Your task to perform on an android device: Search for the new Apple Watch on Best Buy Image 0: 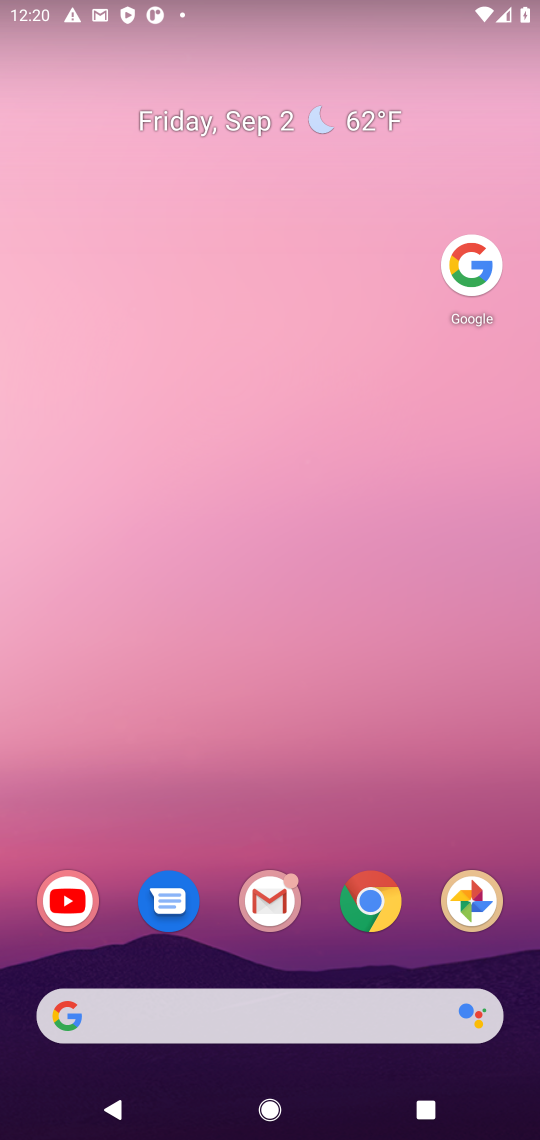
Step 0: drag from (271, 973) to (361, 509)
Your task to perform on an android device: Search for the new Apple Watch on Best Buy Image 1: 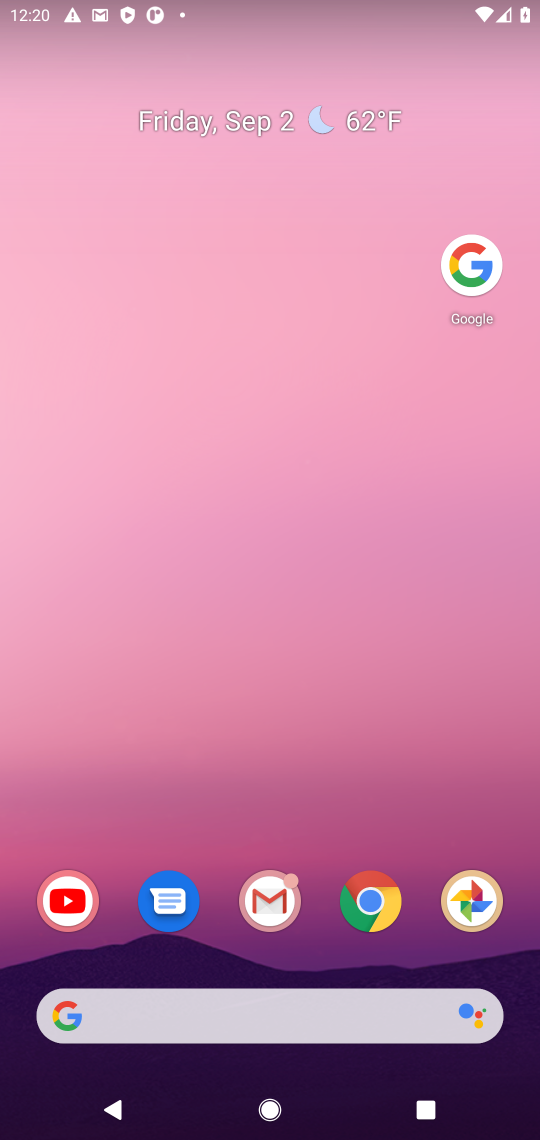
Step 1: drag from (323, 907) to (313, 367)
Your task to perform on an android device: Search for the new Apple Watch on Best Buy Image 2: 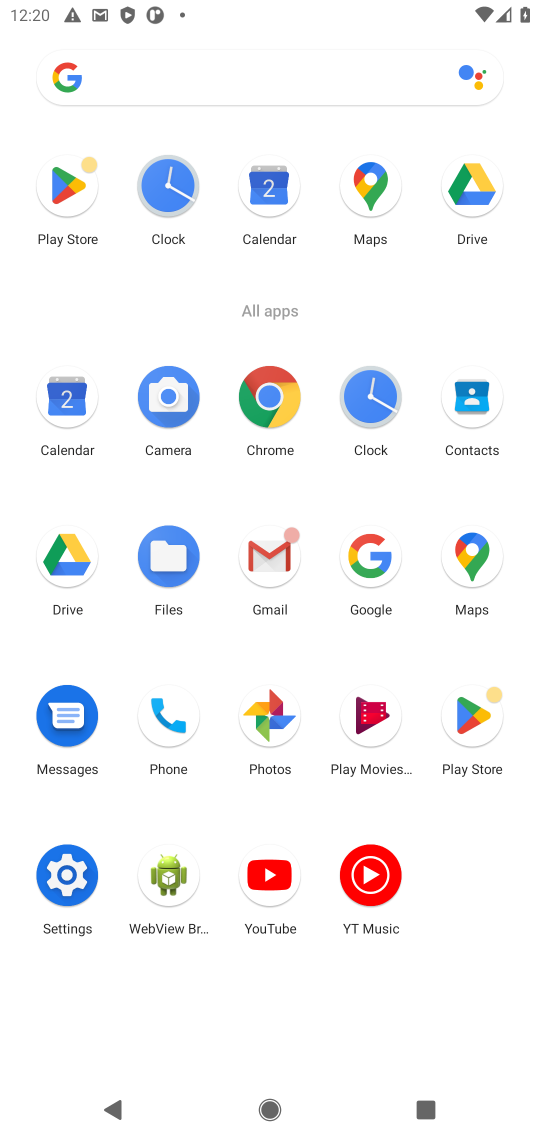
Step 2: click (365, 553)
Your task to perform on an android device: Search for the new Apple Watch on Best Buy Image 3: 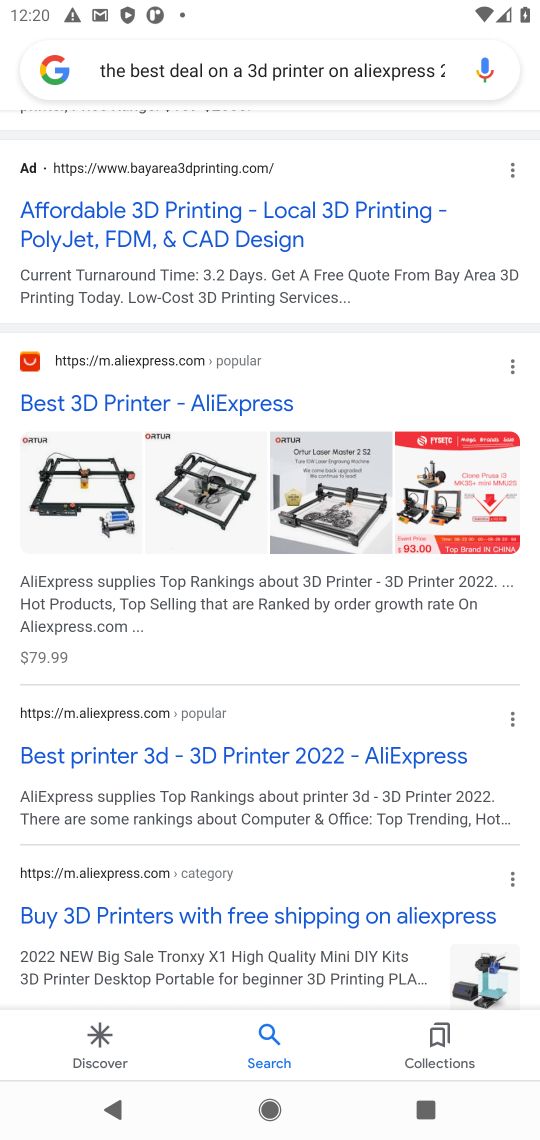
Step 3: drag from (353, 148) to (364, 910)
Your task to perform on an android device: Search for the new Apple Watch on Best Buy Image 4: 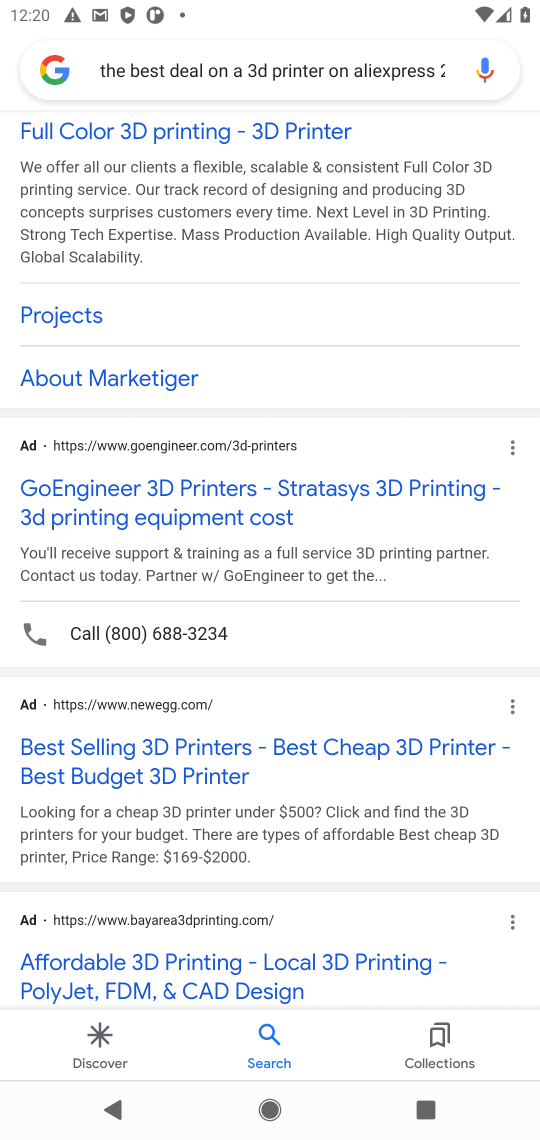
Step 4: click (284, 51)
Your task to perform on an android device: Search for the new Apple Watch on Best Buy Image 5: 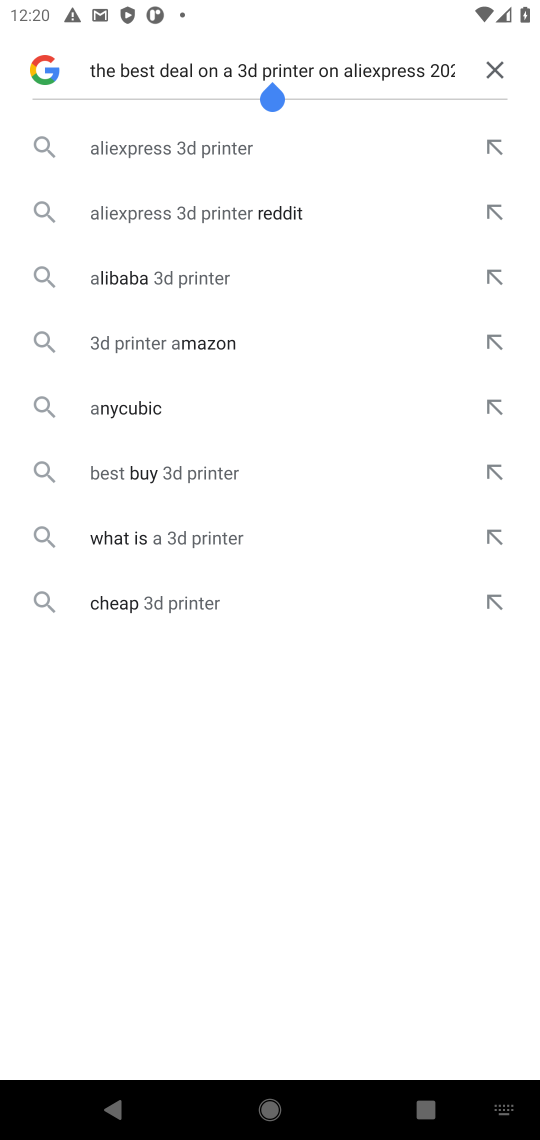
Step 5: click (491, 65)
Your task to perform on an android device: Search for the new Apple Watch on Best Buy Image 6: 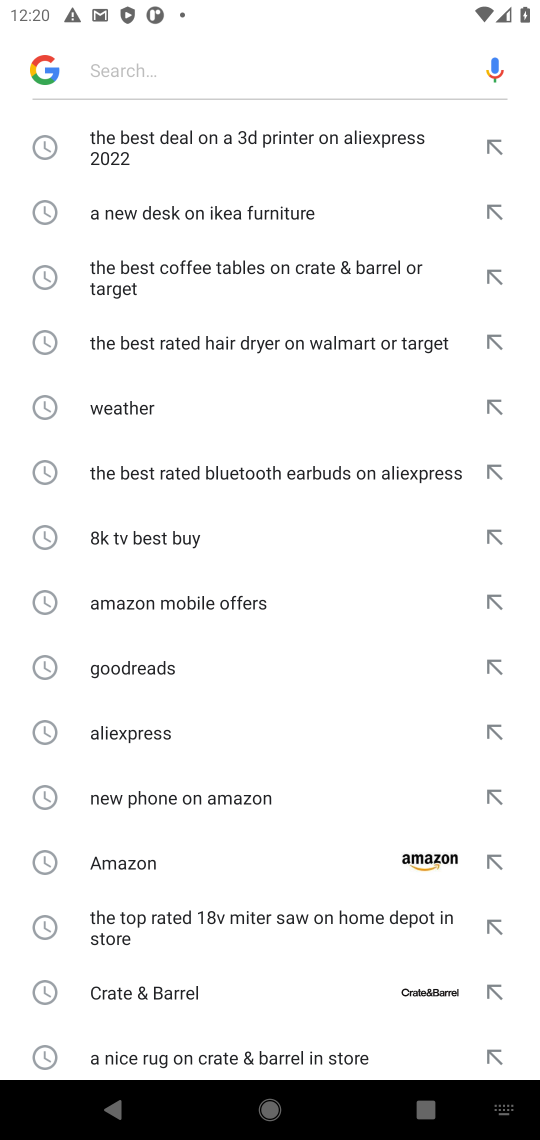
Step 6: click (237, 68)
Your task to perform on an android device: Search for the new Apple Watch on Best Buy Image 7: 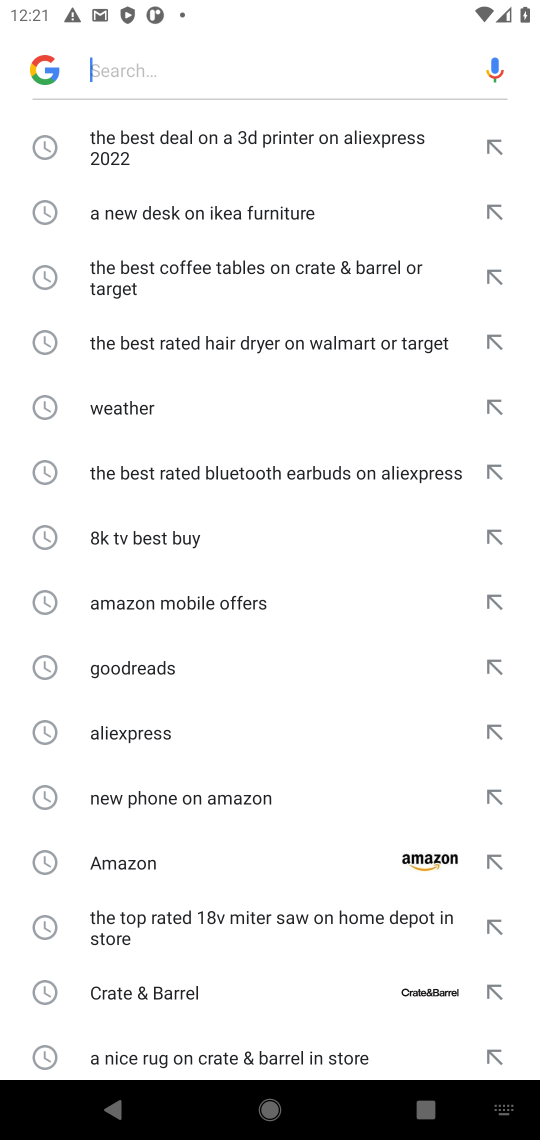
Step 7: type "the new Apple Watch on Best Buy "
Your task to perform on an android device: Search for the new Apple Watch on Best Buy Image 8: 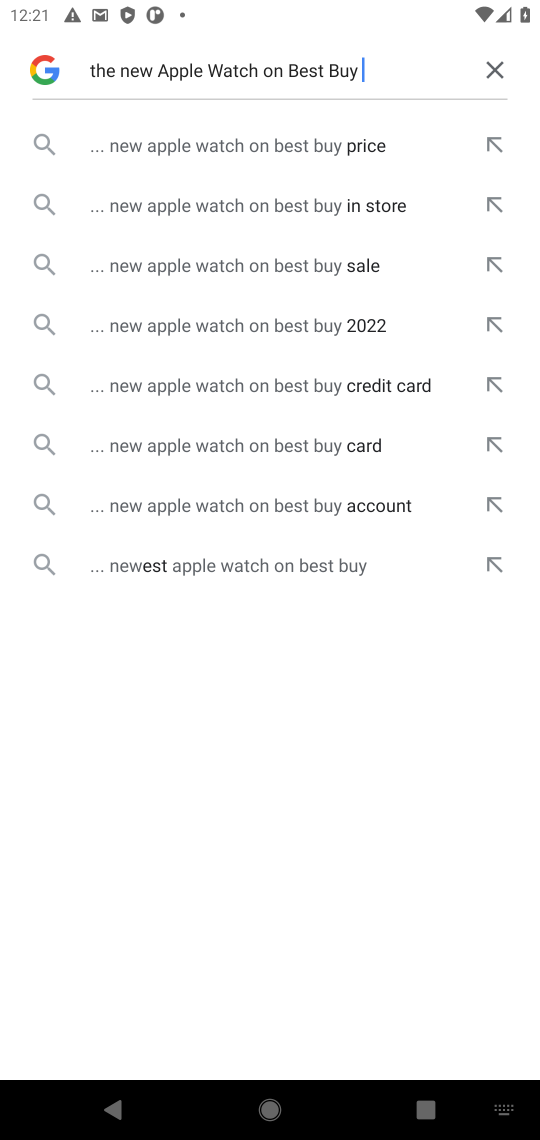
Step 8: click (248, 153)
Your task to perform on an android device: Search for the new Apple Watch on Best Buy Image 9: 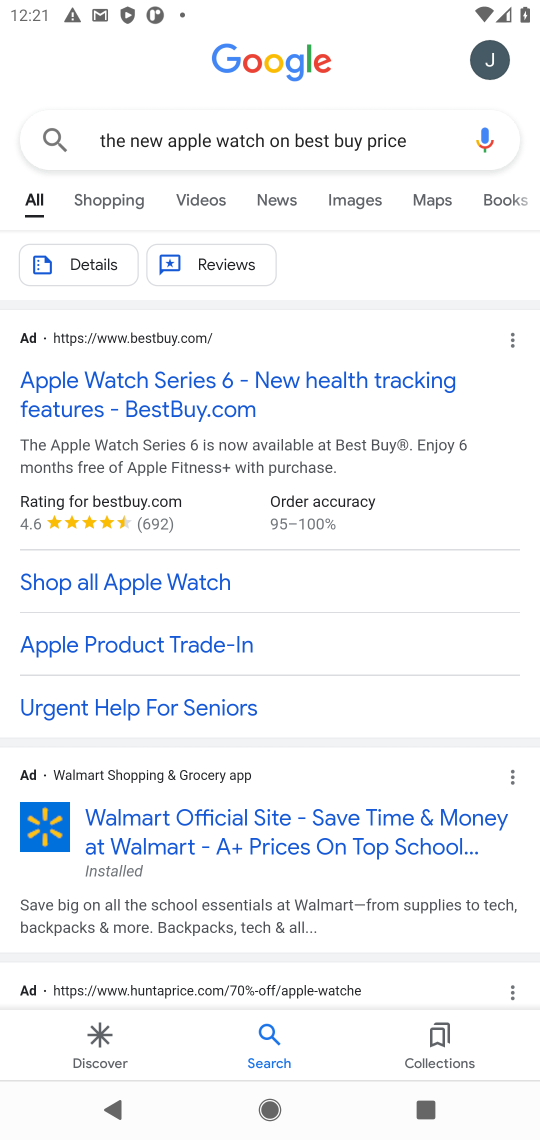
Step 9: drag from (288, 602) to (374, 310)
Your task to perform on an android device: Search for the new Apple Watch on Best Buy Image 10: 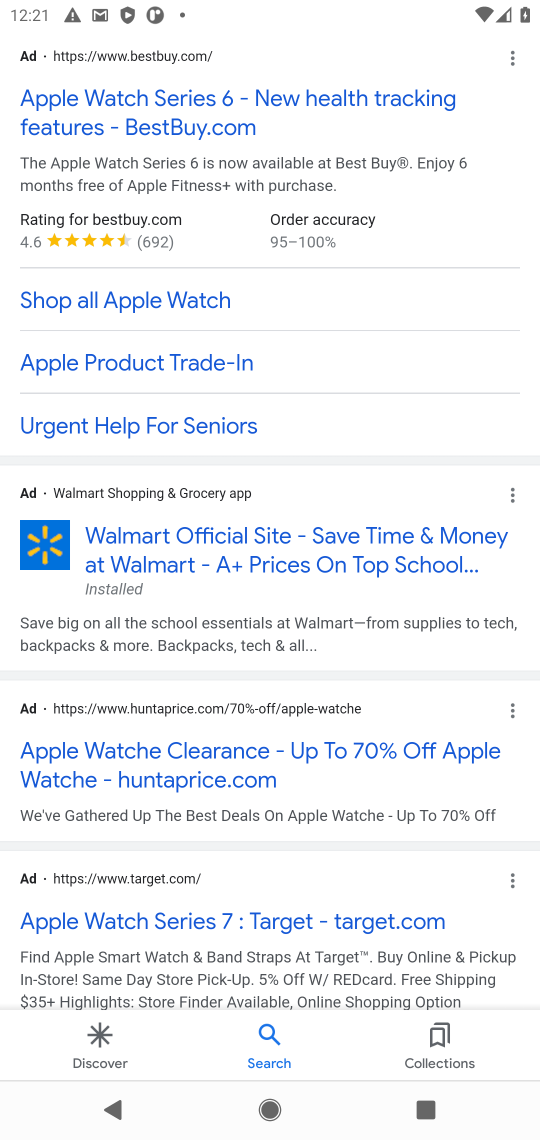
Step 10: drag from (355, 735) to (349, 869)
Your task to perform on an android device: Search for the new Apple Watch on Best Buy Image 11: 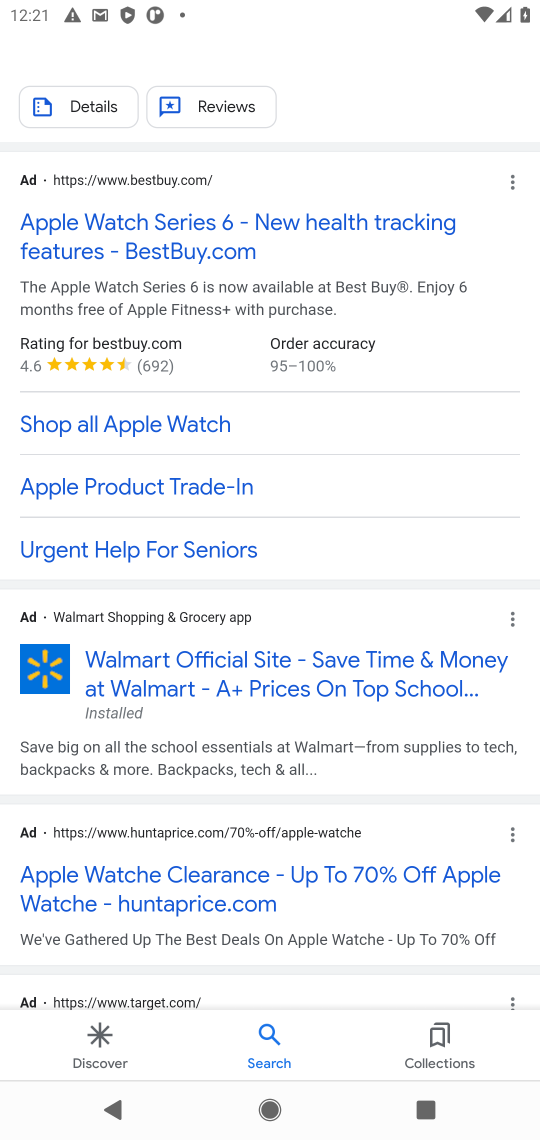
Step 11: drag from (319, 195) to (323, 892)
Your task to perform on an android device: Search for the new Apple Watch on Best Buy Image 12: 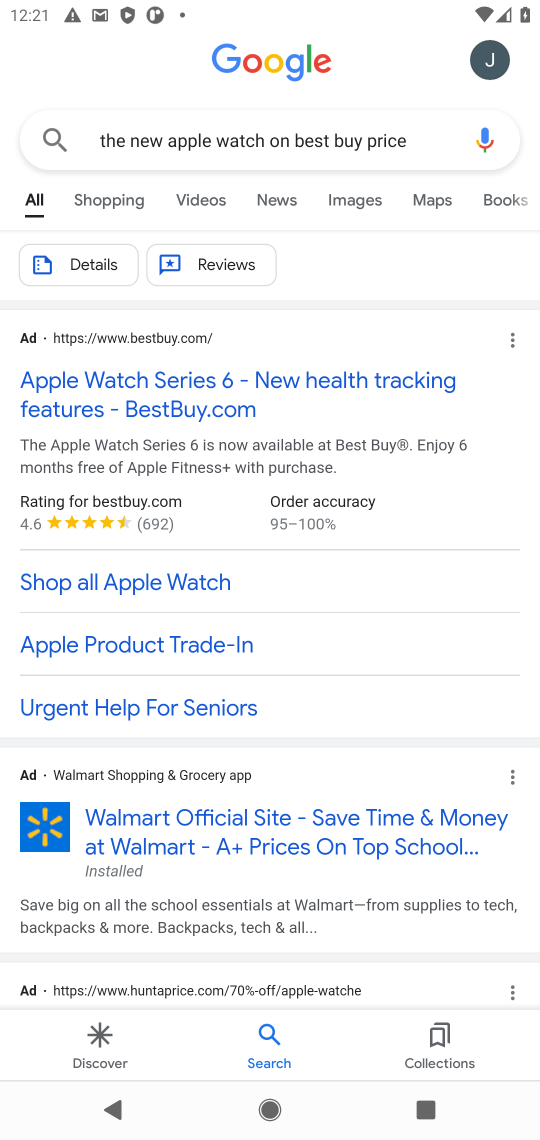
Step 12: click (421, 133)
Your task to perform on an android device: Search for the new Apple Watch on Best Buy Image 13: 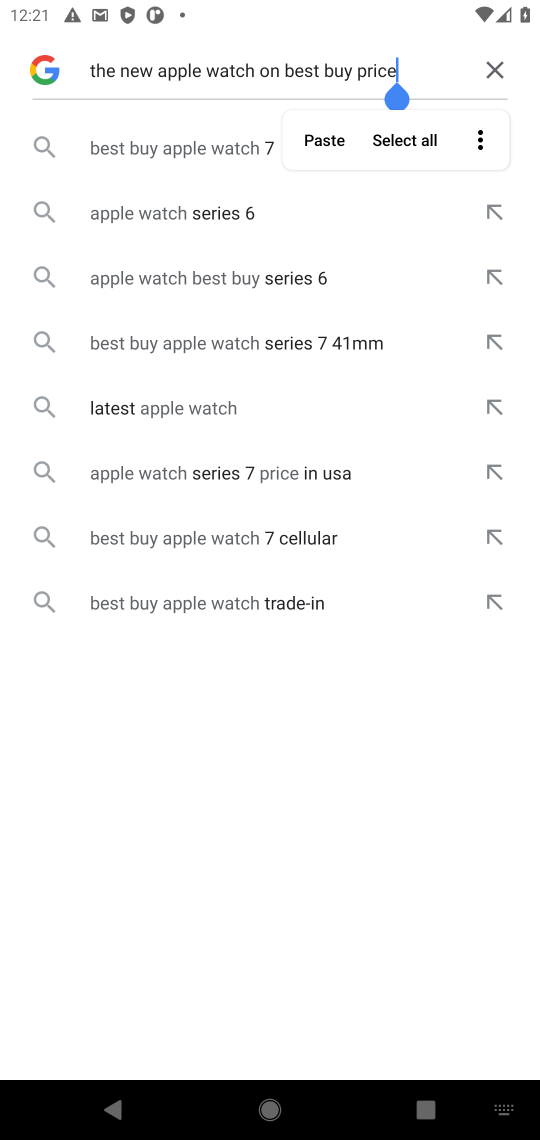
Step 13: click (499, 65)
Your task to perform on an android device: Search for the new Apple Watch on Best Buy Image 14: 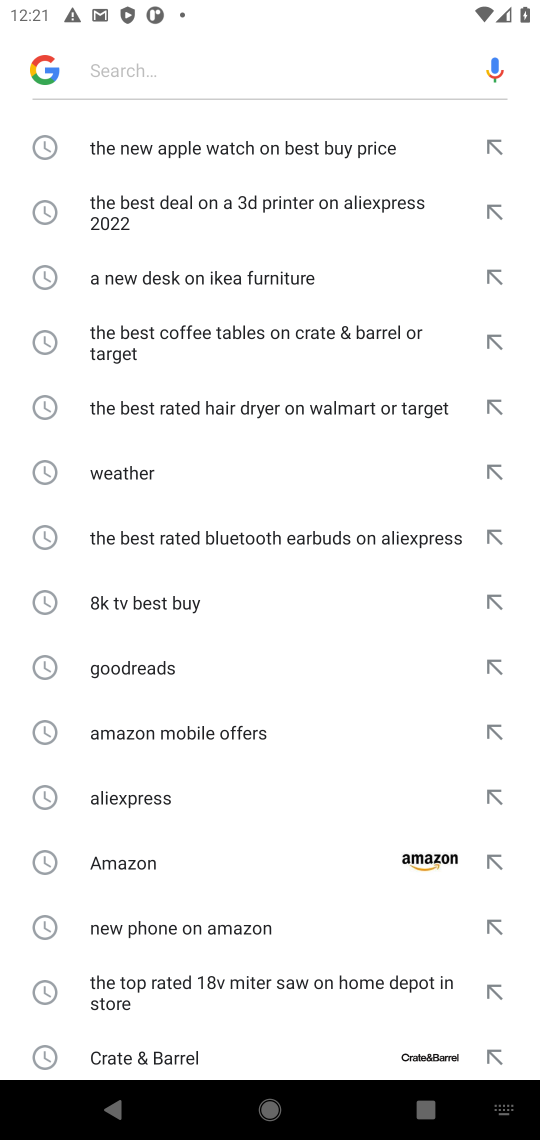
Step 14: click (320, 62)
Your task to perform on an android device: Search for the new Apple Watch on Best Buy Image 15: 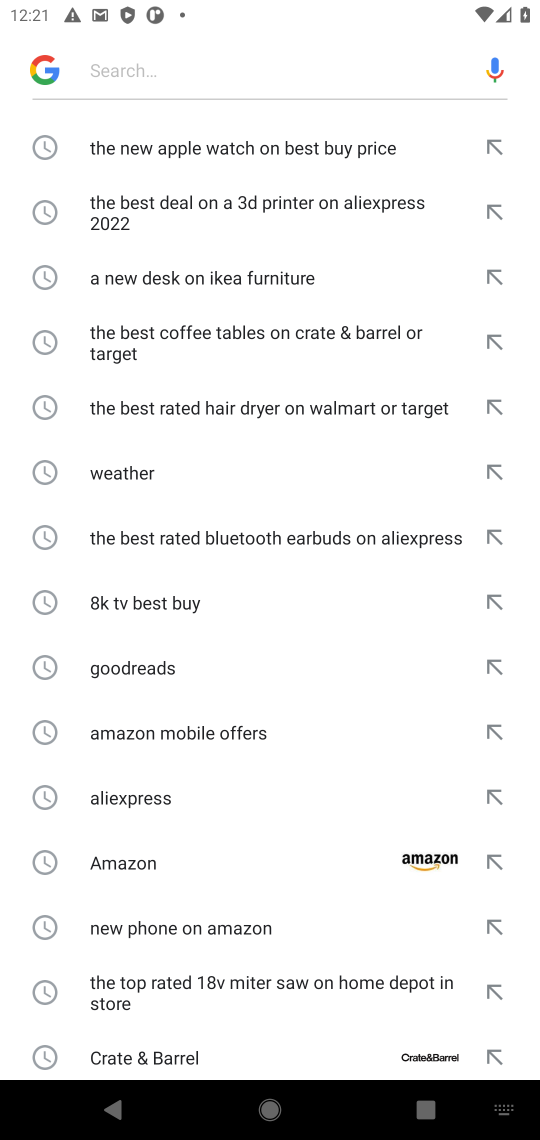
Step 15: type "best buy "
Your task to perform on an android device: Search for the new Apple Watch on Best Buy Image 16: 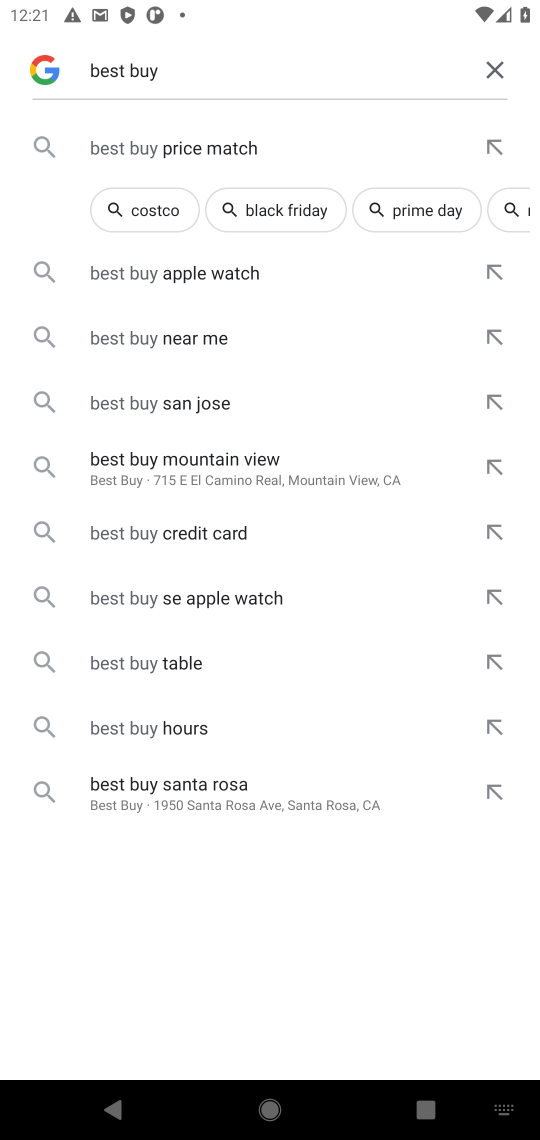
Step 16: click (128, 134)
Your task to perform on an android device: Search for the new Apple Watch on Best Buy Image 17: 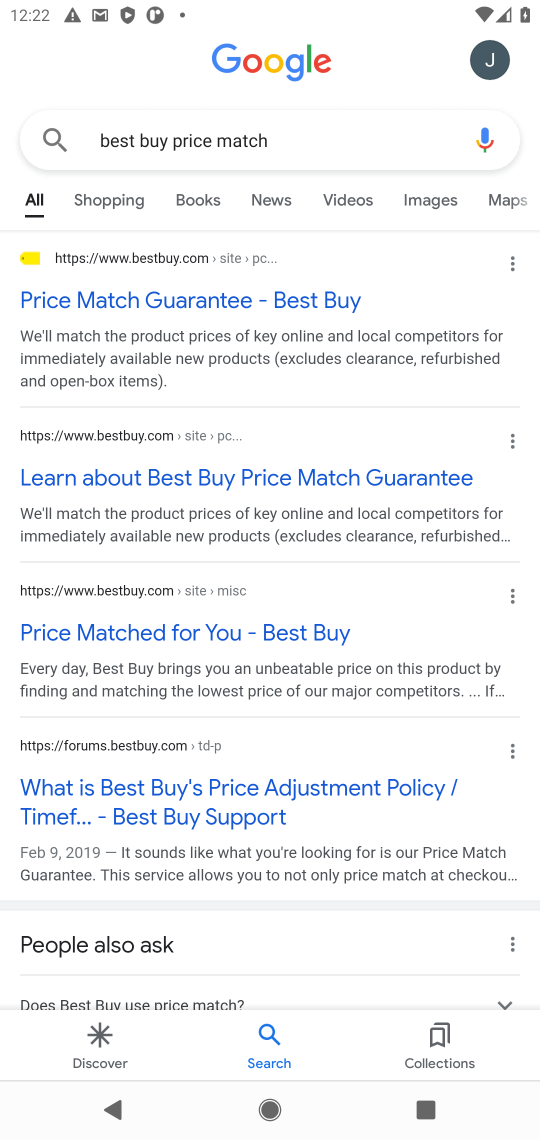
Step 17: click (255, 301)
Your task to perform on an android device: Search for the new Apple Watch on Best Buy Image 18: 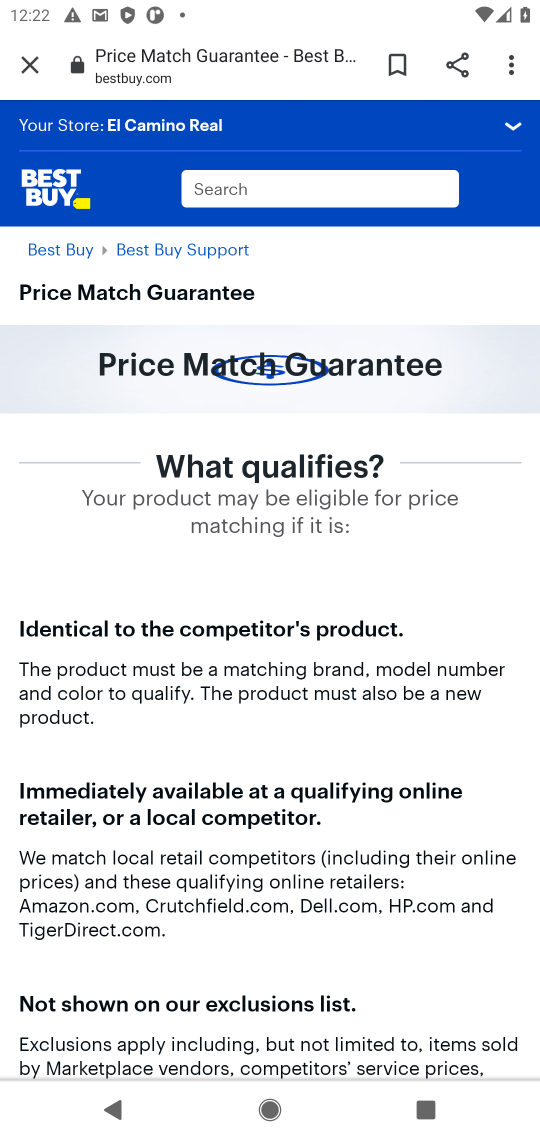
Step 18: click (231, 191)
Your task to perform on an android device: Search for the new Apple Watch on Best Buy Image 19: 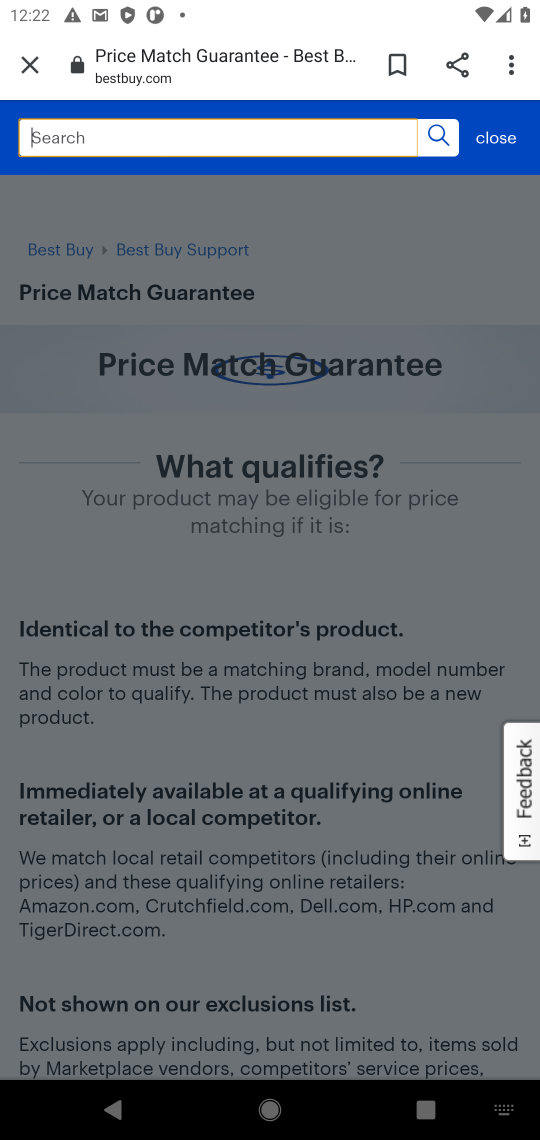
Step 19: click (265, 127)
Your task to perform on an android device: Search for the new Apple Watch on Best Buy Image 20: 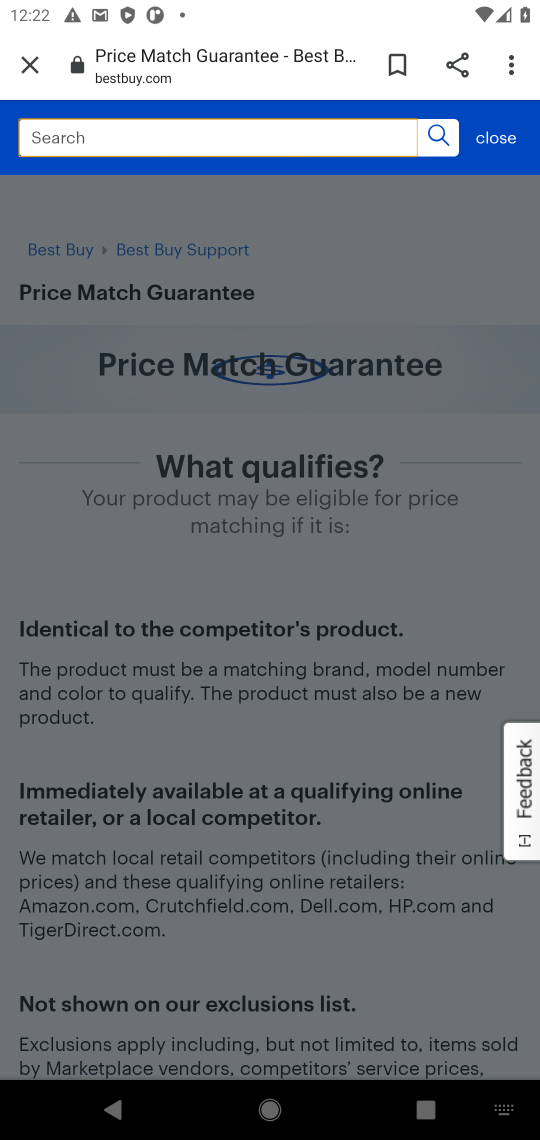
Step 20: type "apple watch "
Your task to perform on an android device: Search for the new Apple Watch on Best Buy Image 21: 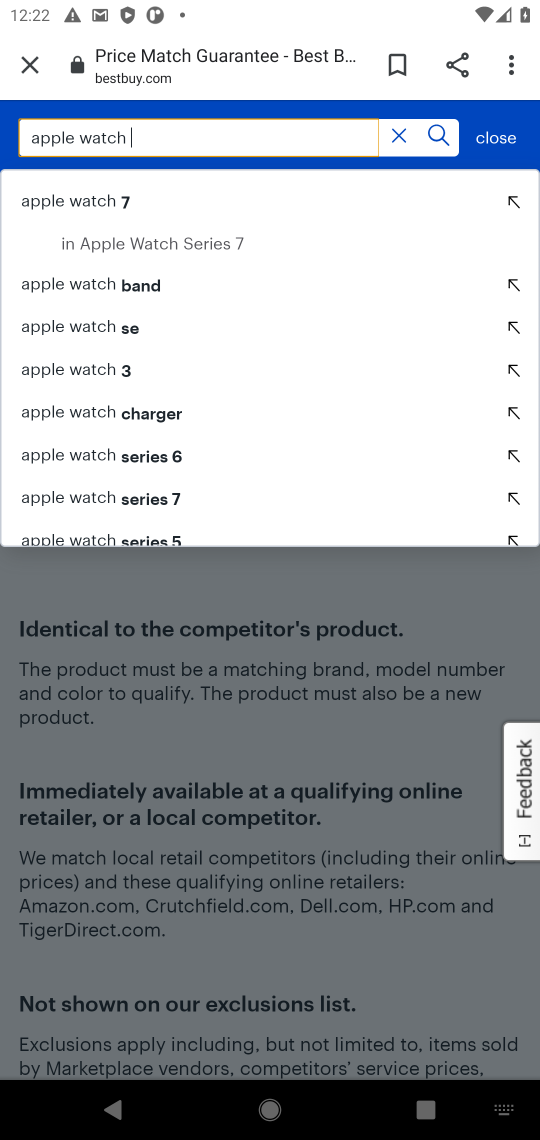
Step 21: click (108, 205)
Your task to perform on an android device: Search for the new Apple Watch on Best Buy Image 22: 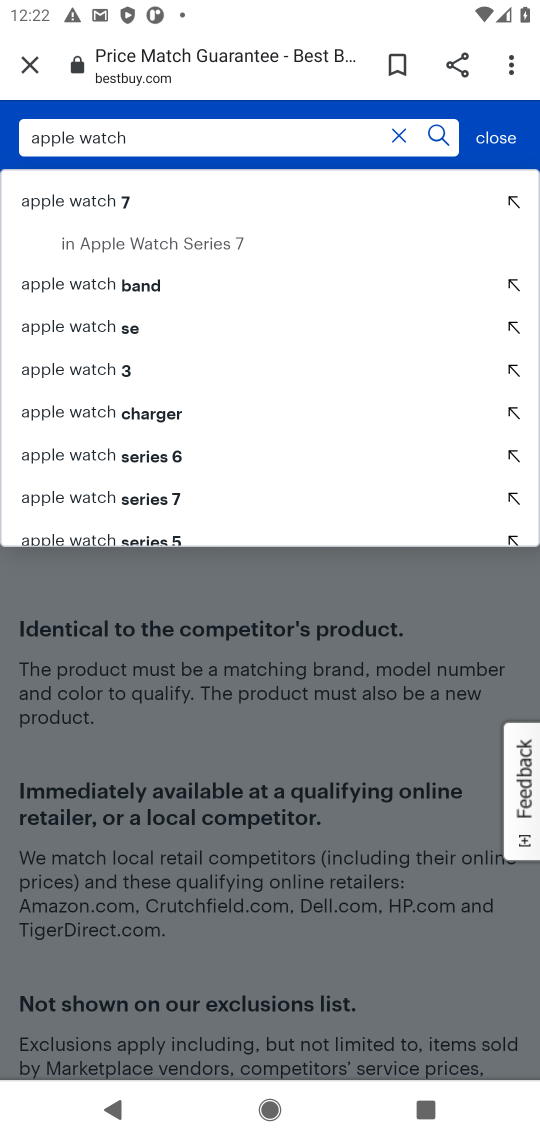
Step 22: click (131, 204)
Your task to perform on an android device: Search for the new Apple Watch on Best Buy Image 23: 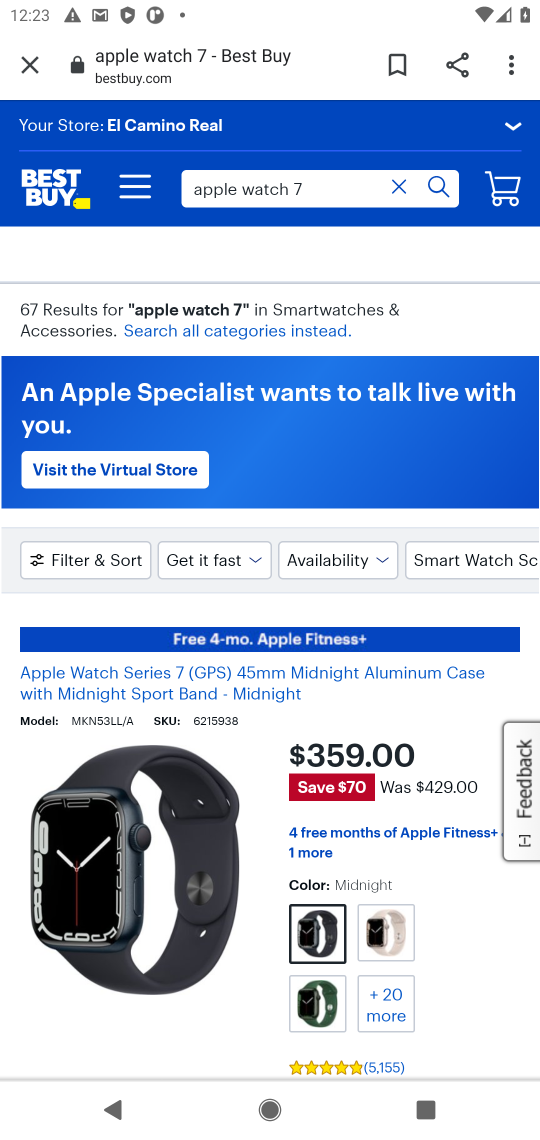
Step 23: task complete